Your task to perform on an android device: Open Google Chrome and click the shortcut for Amazon.com Image 0: 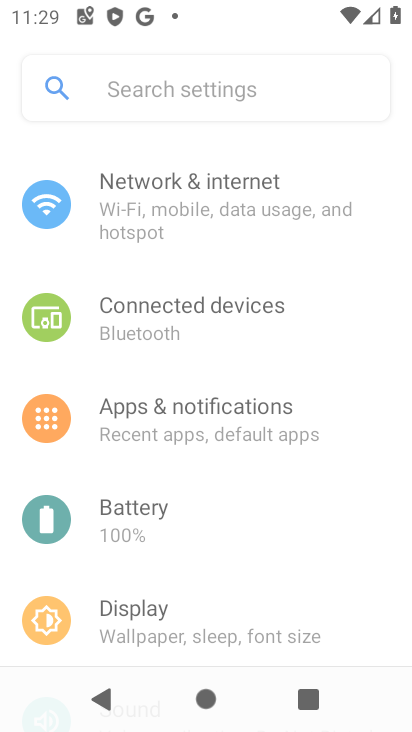
Step 0: press home button
Your task to perform on an android device: Open Google Chrome and click the shortcut for Amazon.com Image 1: 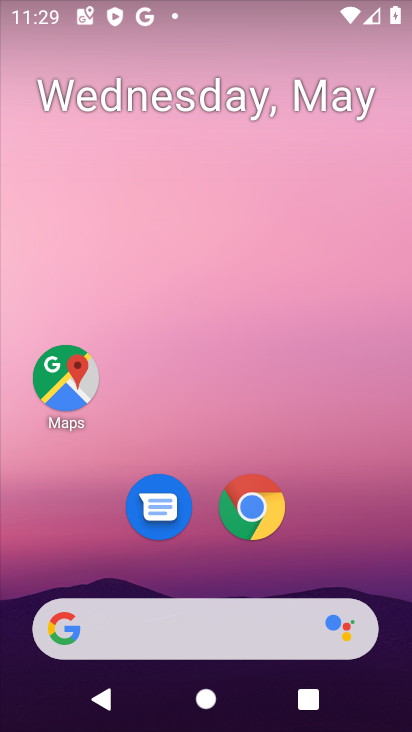
Step 1: click (251, 526)
Your task to perform on an android device: Open Google Chrome and click the shortcut for Amazon.com Image 2: 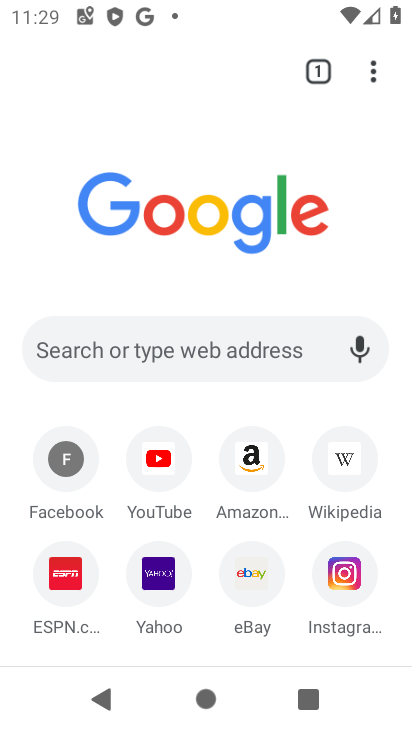
Step 2: click (251, 476)
Your task to perform on an android device: Open Google Chrome and click the shortcut for Amazon.com Image 3: 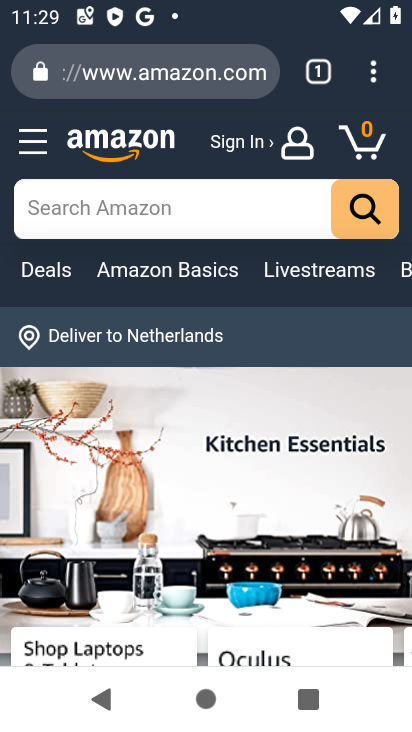
Step 3: task complete